Your task to perform on an android device: Turn on the flashlight Image 0: 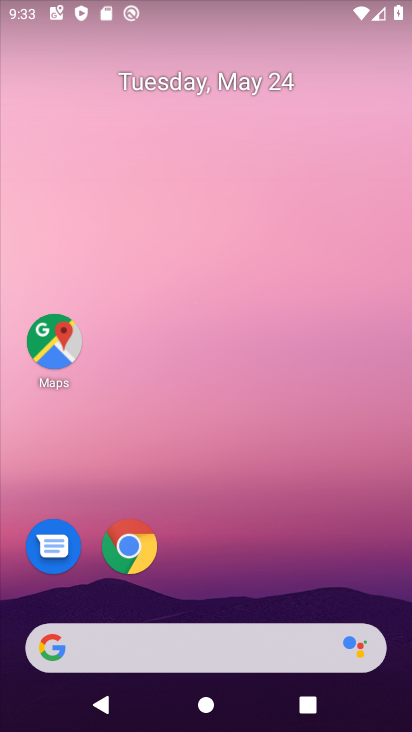
Step 0: drag from (290, 541) to (323, 55)
Your task to perform on an android device: Turn on the flashlight Image 1: 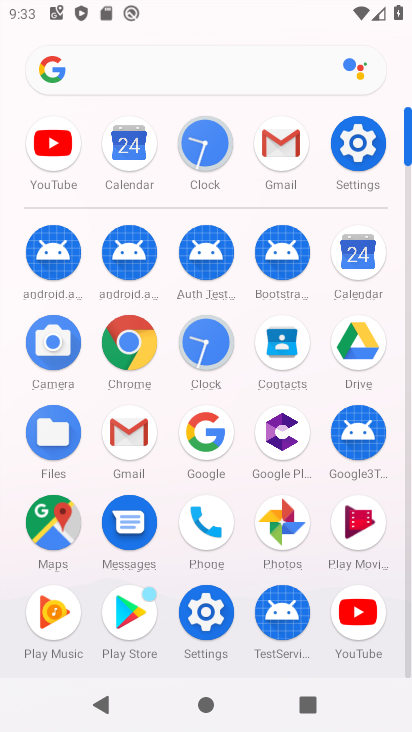
Step 1: click (348, 148)
Your task to perform on an android device: Turn on the flashlight Image 2: 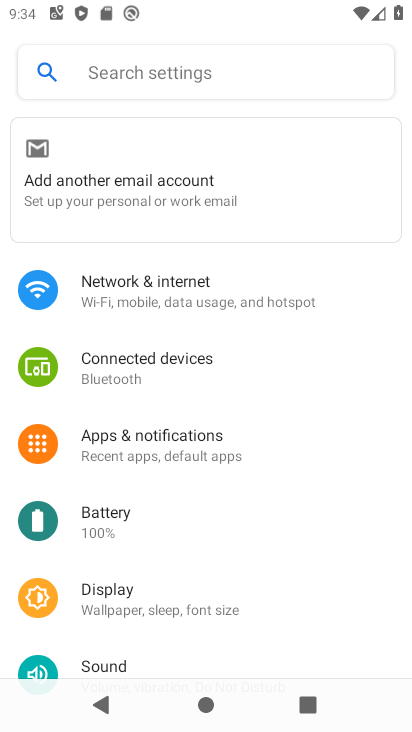
Step 2: click (273, 72)
Your task to perform on an android device: Turn on the flashlight Image 3: 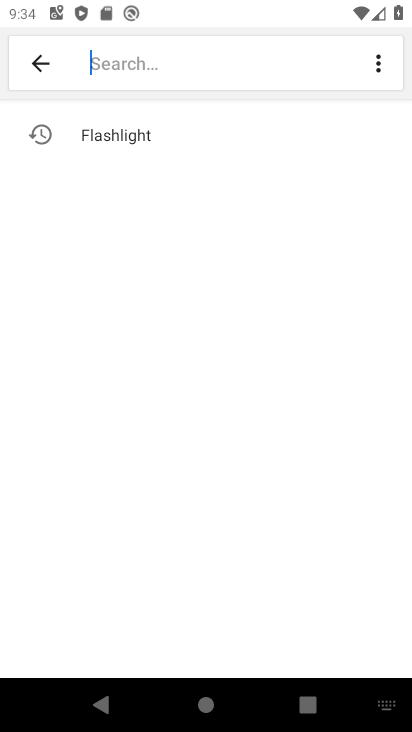
Step 3: click (149, 135)
Your task to perform on an android device: Turn on the flashlight Image 4: 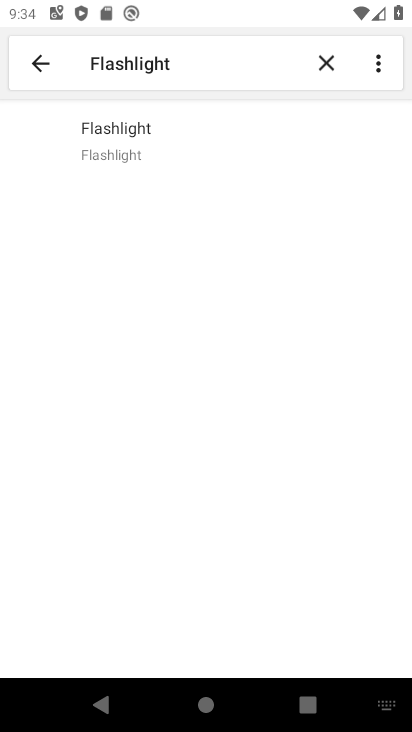
Step 4: click (111, 139)
Your task to perform on an android device: Turn on the flashlight Image 5: 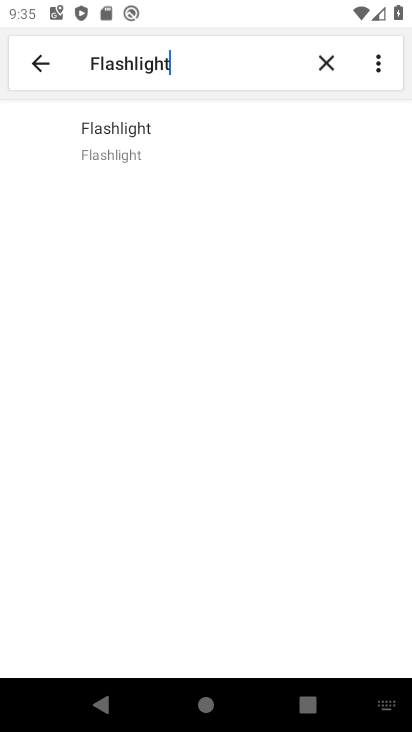
Step 5: task complete